Your task to perform on an android device: Search for Italian restaurants on Maps Image 0: 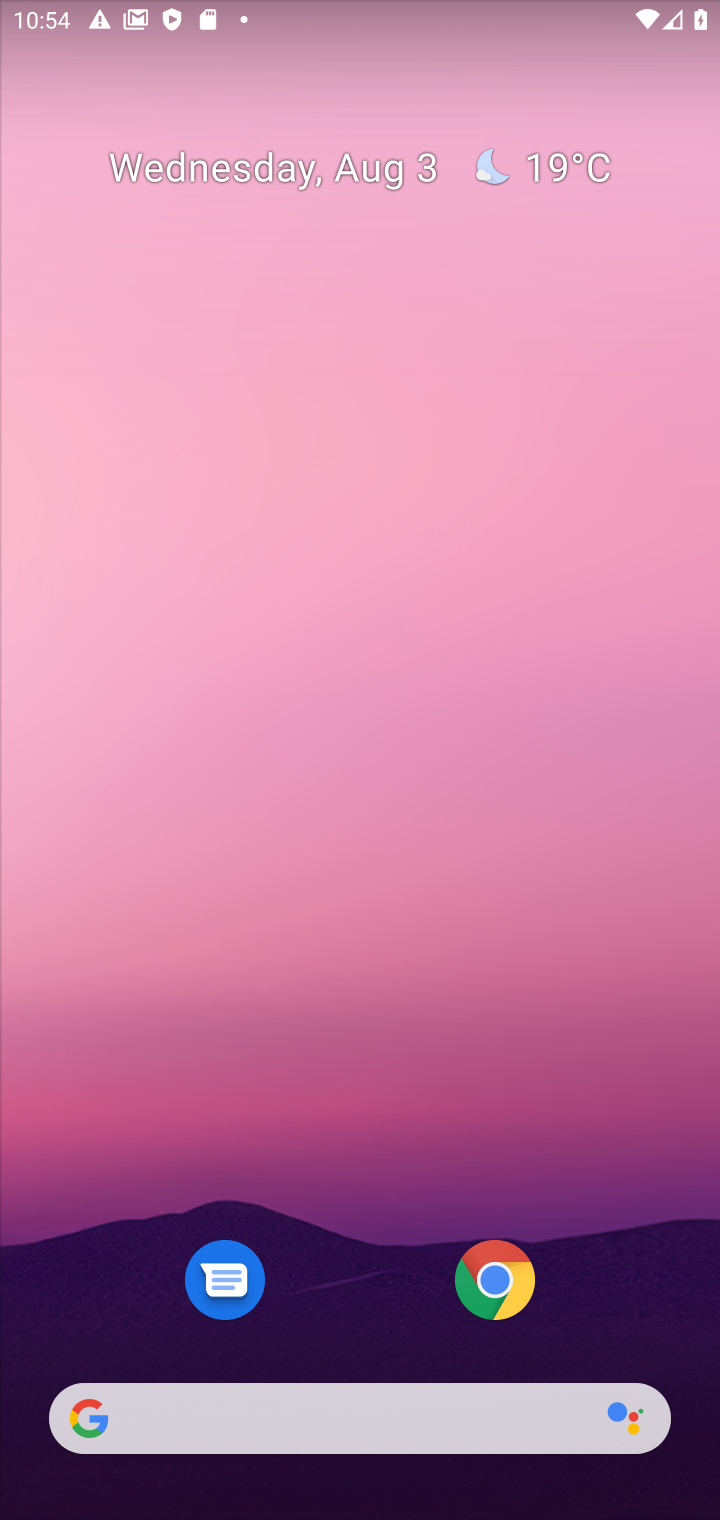
Step 0: drag from (389, 1167) to (429, 386)
Your task to perform on an android device: Search for Italian restaurants on Maps Image 1: 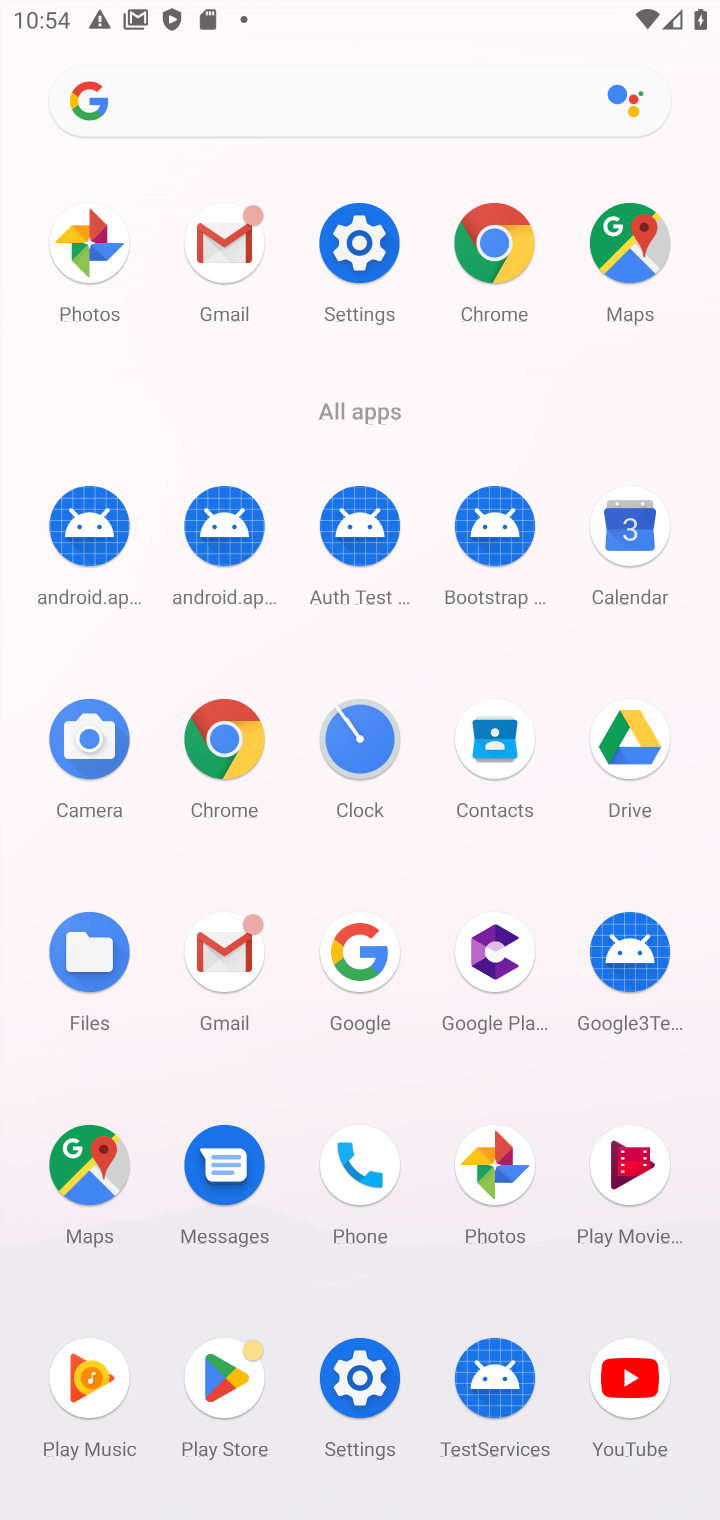
Step 1: click (619, 271)
Your task to perform on an android device: Search for Italian restaurants on Maps Image 2: 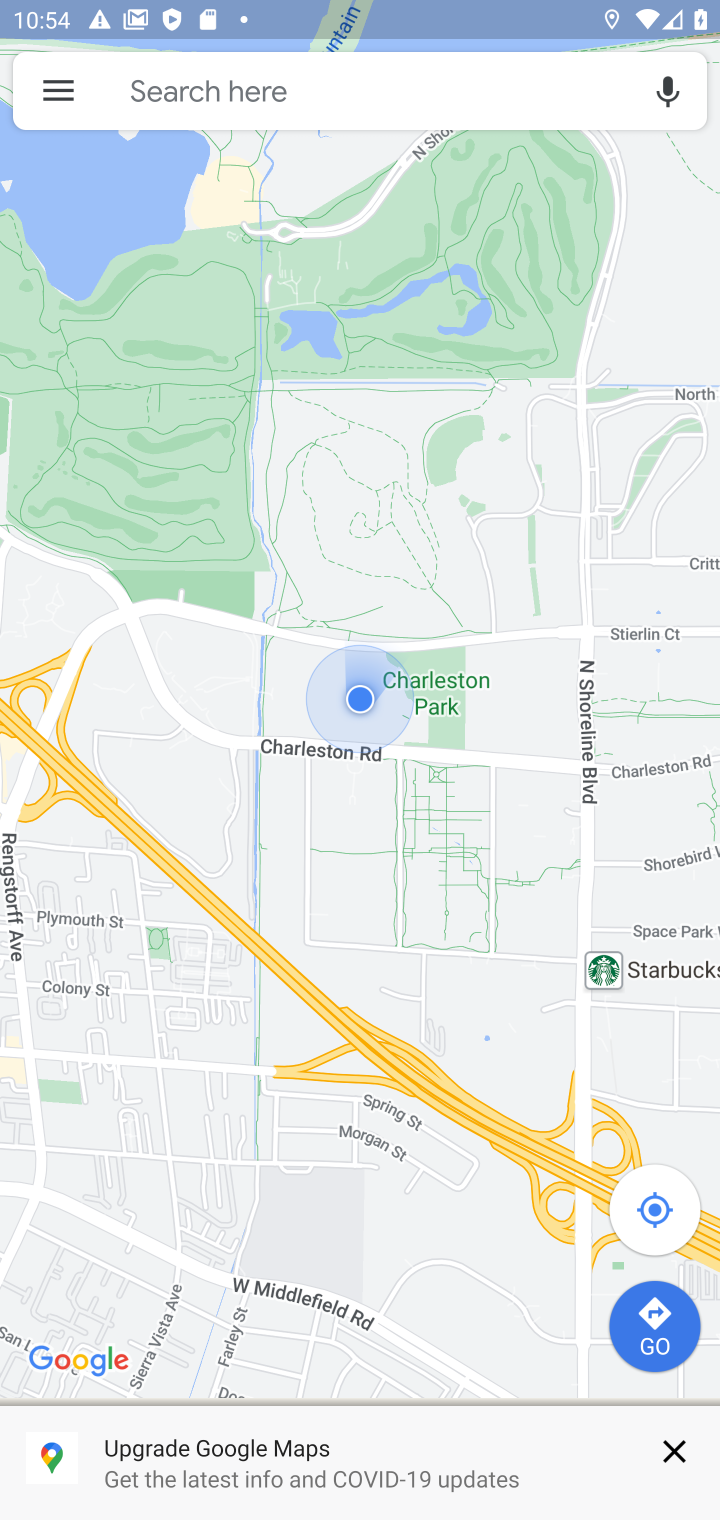
Step 2: type " Italian restaurants"
Your task to perform on an android device: Search for Italian restaurants on Maps Image 3: 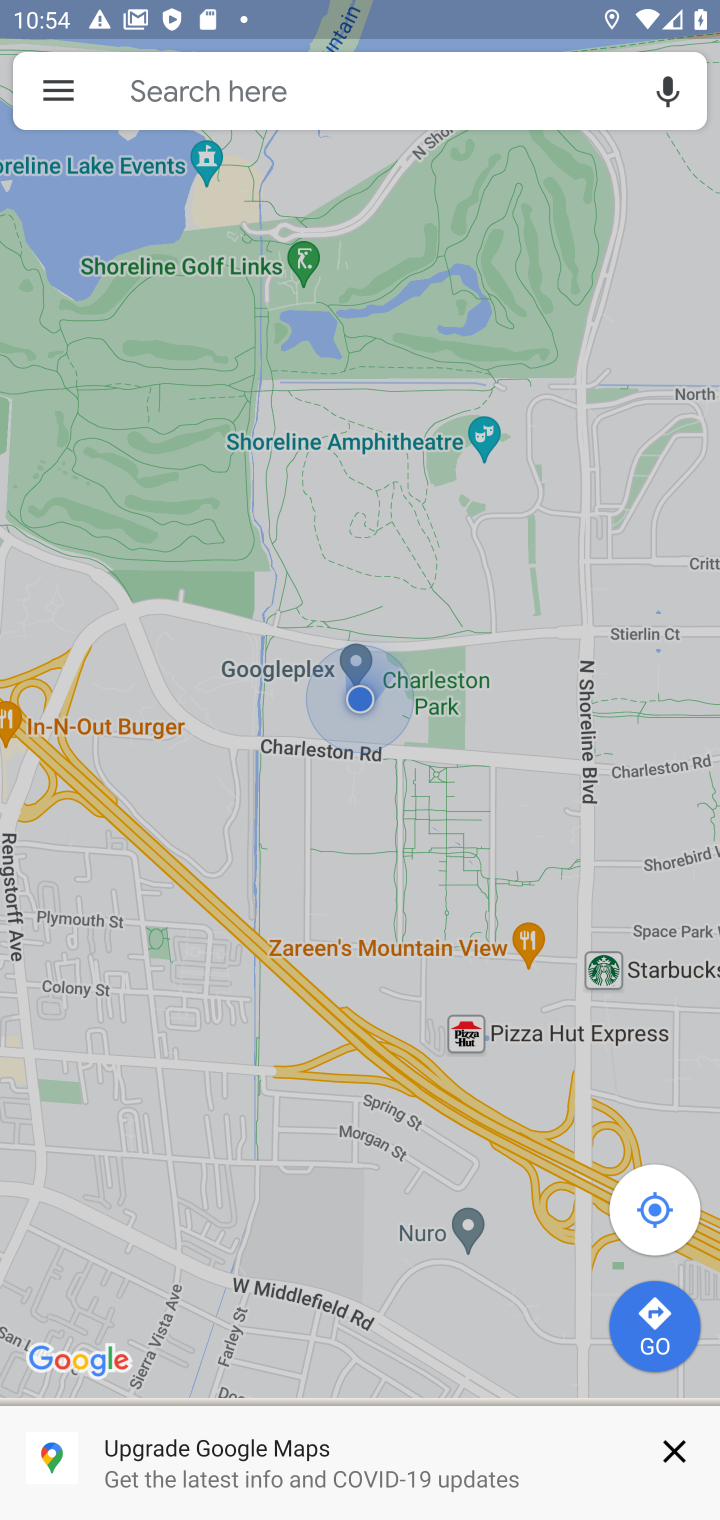
Step 3: press enter
Your task to perform on an android device: Search for Italian restaurants on Maps Image 4: 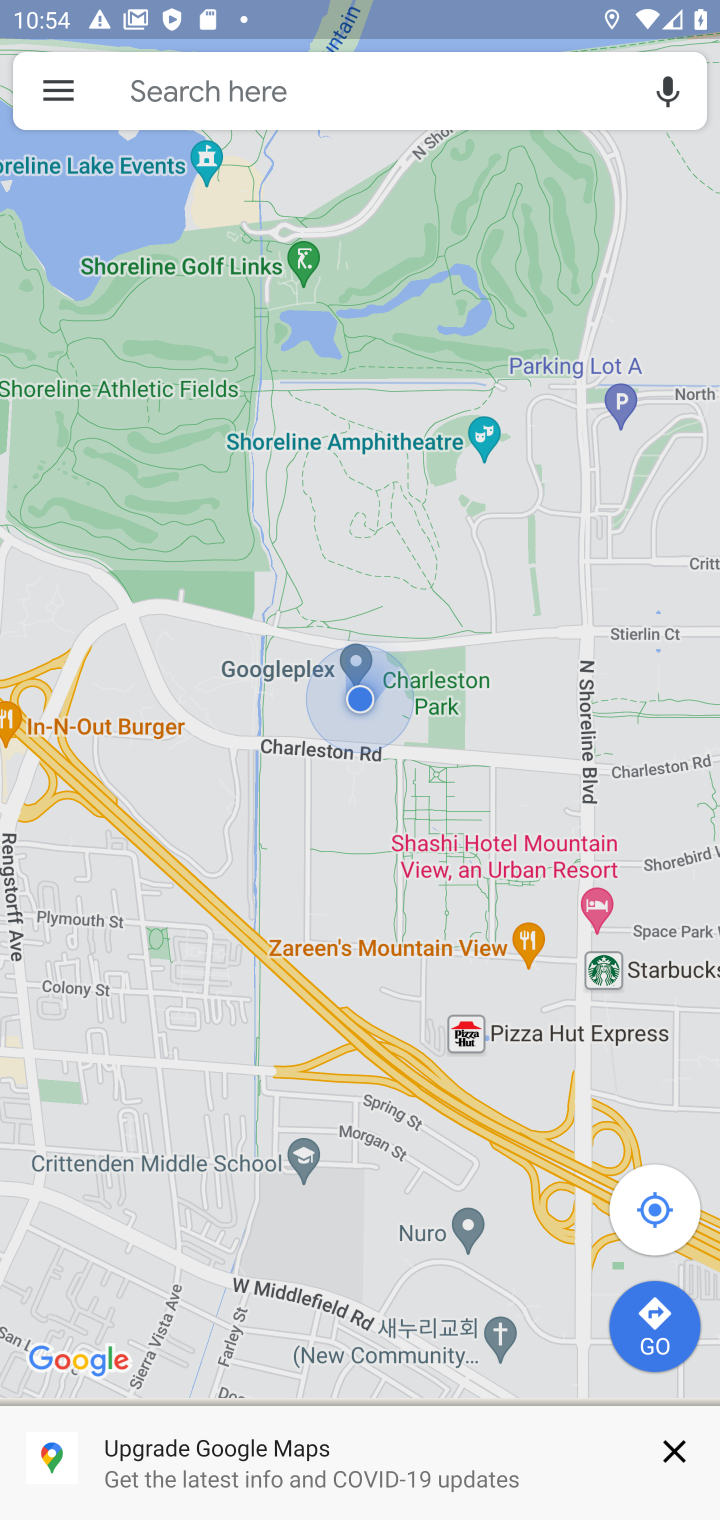
Step 4: click (259, 93)
Your task to perform on an android device: Search for Italian restaurants on Maps Image 5: 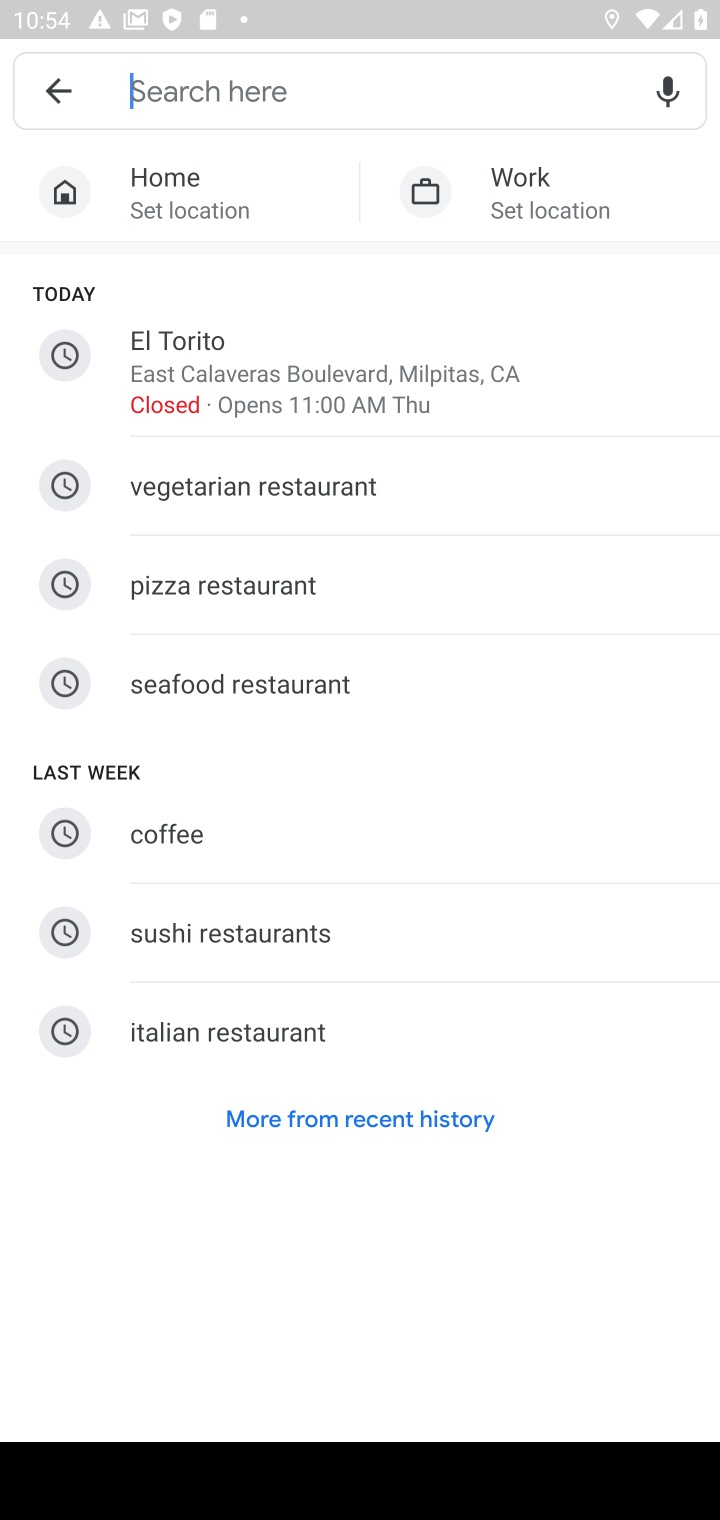
Step 5: type " Italian restaurants"
Your task to perform on an android device: Search for Italian restaurants on Maps Image 6: 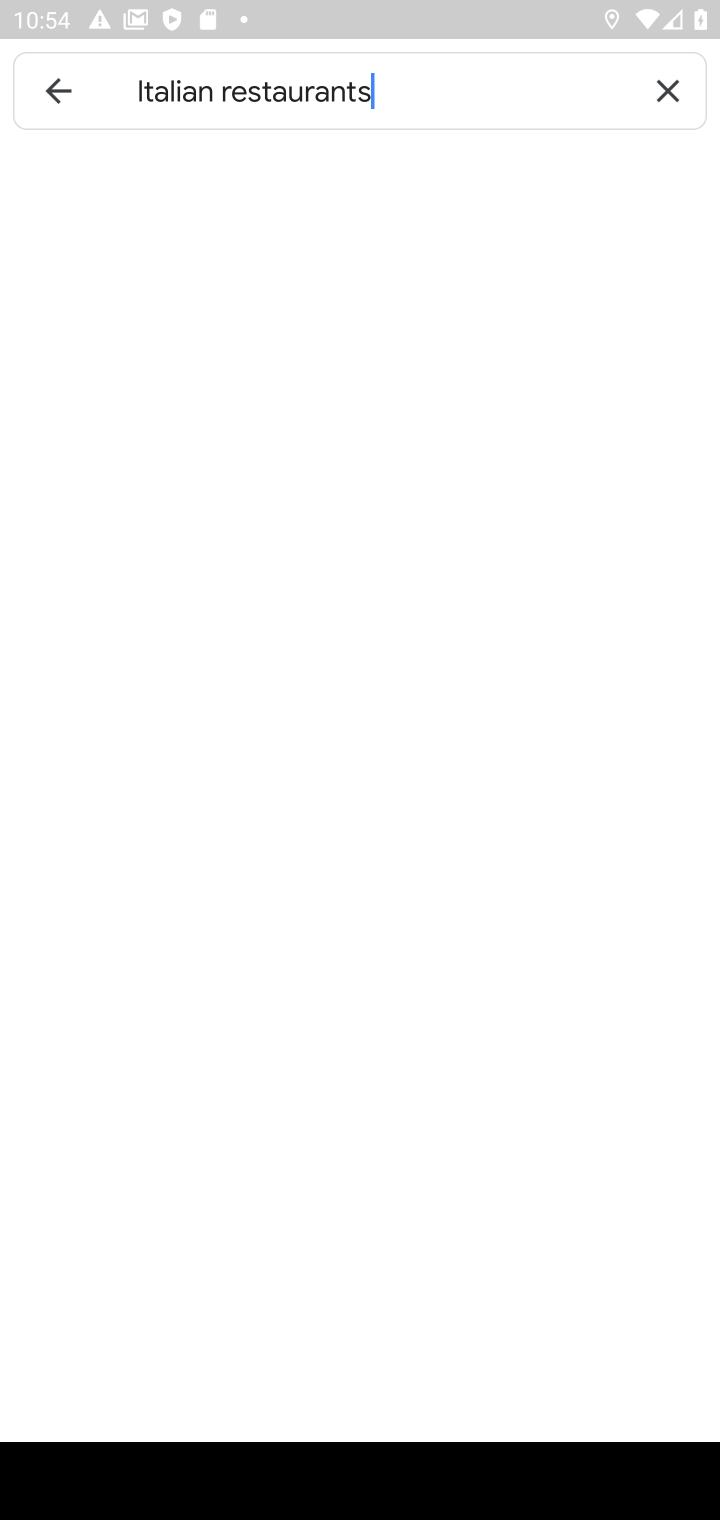
Step 6: press enter
Your task to perform on an android device: Search for Italian restaurants on Maps Image 7: 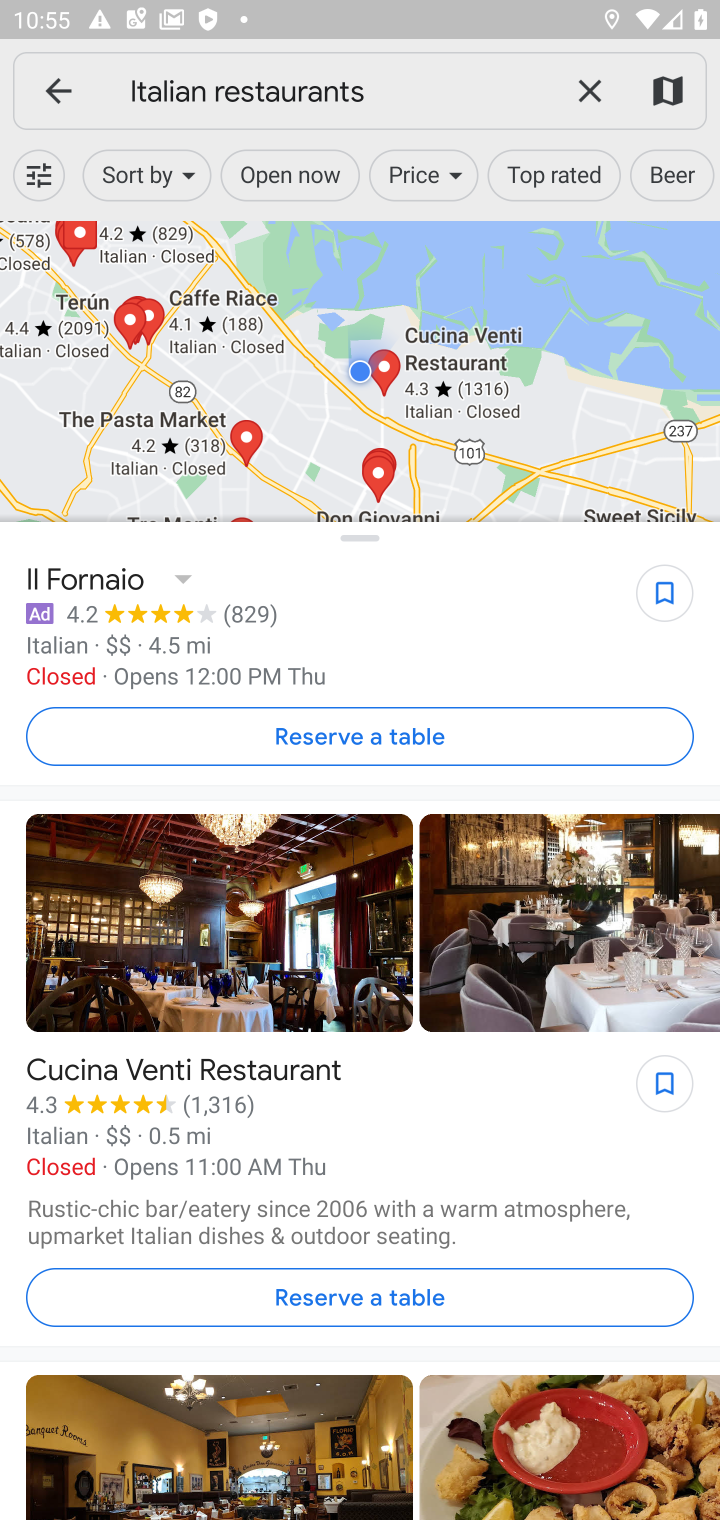
Step 7: task complete